Your task to perform on an android device: Do I have any events this weekend? Image 0: 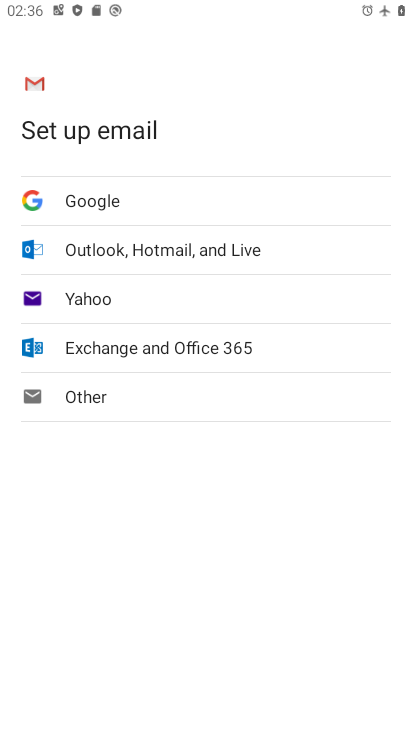
Step 0: press home button
Your task to perform on an android device: Do I have any events this weekend? Image 1: 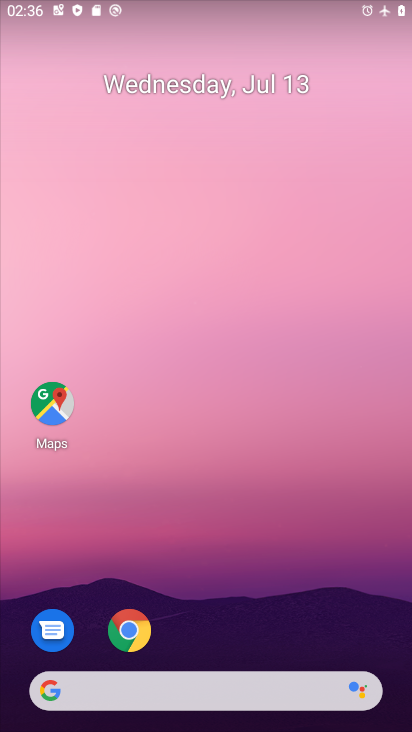
Step 1: drag from (197, 630) to (182, 187)
Your task to perform on an android device: Do I have any events this weekend? Image 2: 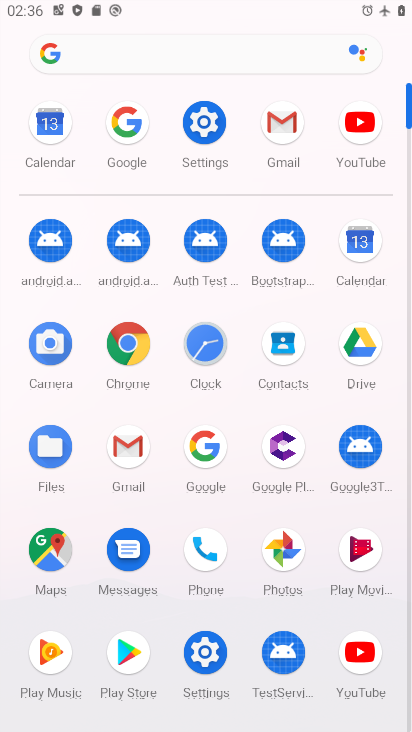
Step 2: click (358, 263)
Your task to perform on an android device: Do I have any events this weekend? Image 3: 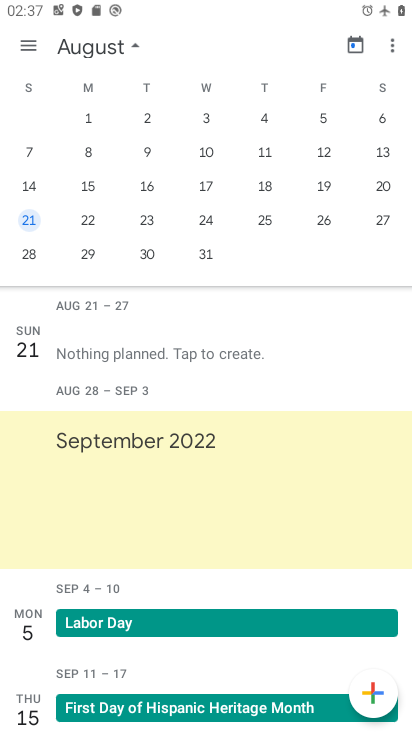
Step 3: task complete